Your task to perform on an android device: Open the Play Movies app and select the watchlist tab. Image 0: 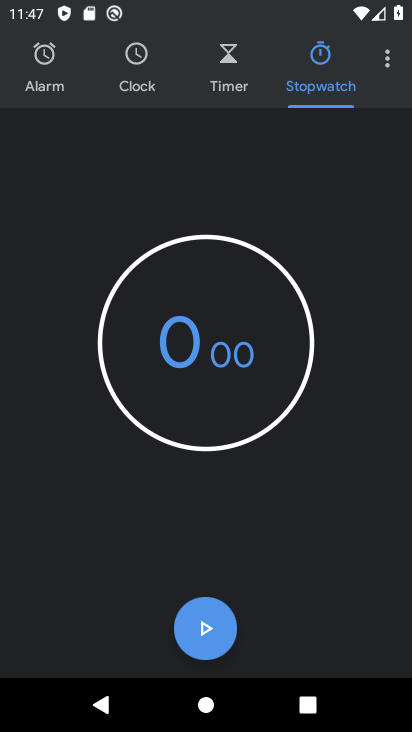
Step 0: press home button
Your task to perform on an android device: Open the Play Movies app and select the watchlist tab. Image 1: 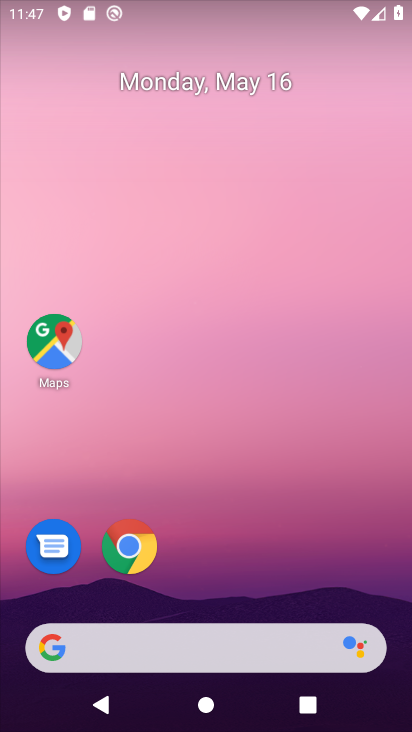
Step 1: drag from (397, 602) to (328, 108)
Your task to perform on an android device: Open the Play Movies app and select the watchlist tab. Image 2: 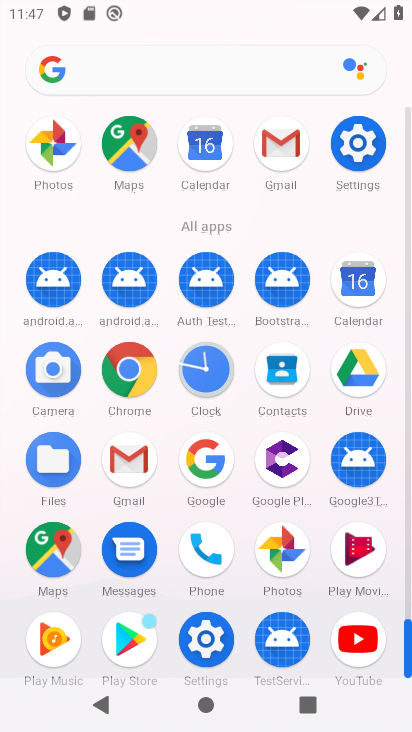
Step 2: click (407, 604)
Your task to perform on an android device: Open the Play Movies app and select the watchlist tab. Image 3: 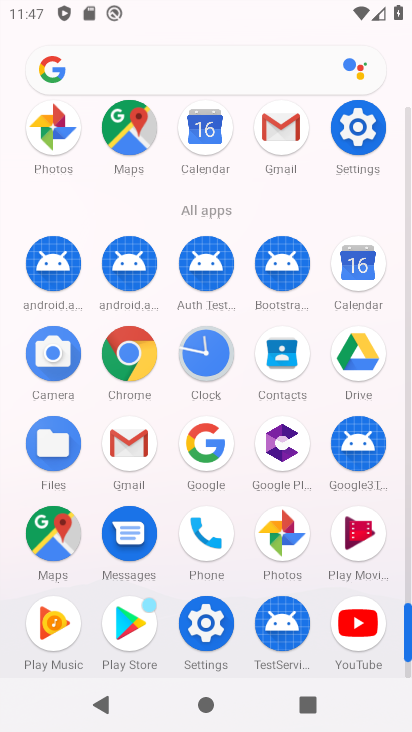
Step 3: click (355, 531)
Your task to perform on an android device: Open the Play Movies app and select the watchlist tab. Image 4: 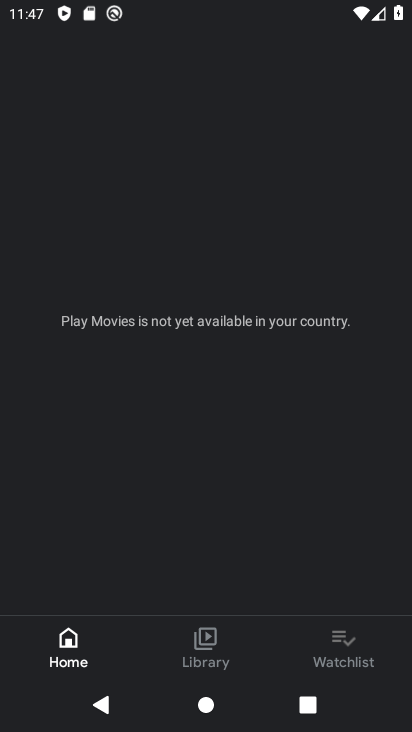
Step 4: click (339, 647)
Your task to perform on an android device: Open the Play Movies app and select the watchlist tab. Image 5: 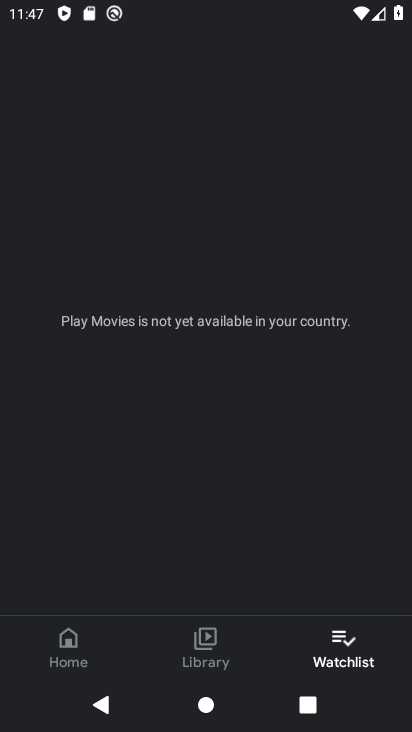
Step 5: task complete